Your task to perform on an android device: change the upload size in google photos Image 0: 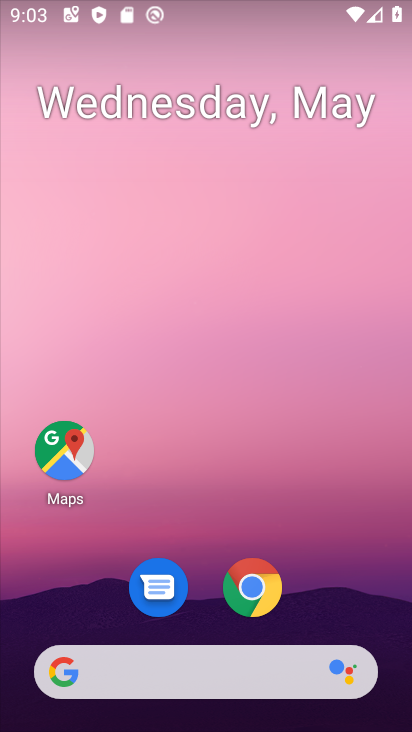
Step 0: drag from (202, 724) to (166, 106)
Your task to perform on an android device: change the upload size in google photos Image 1: 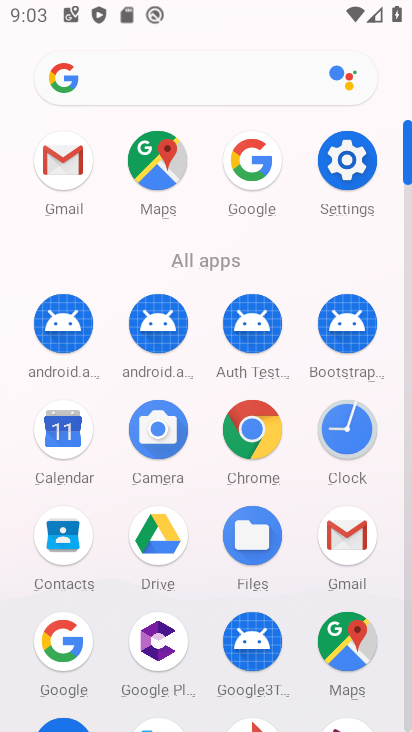
Step 1: drag from (196, 618) to (197, 248)
Your task to perform on an android device: change the upload size in google photos Image 2: 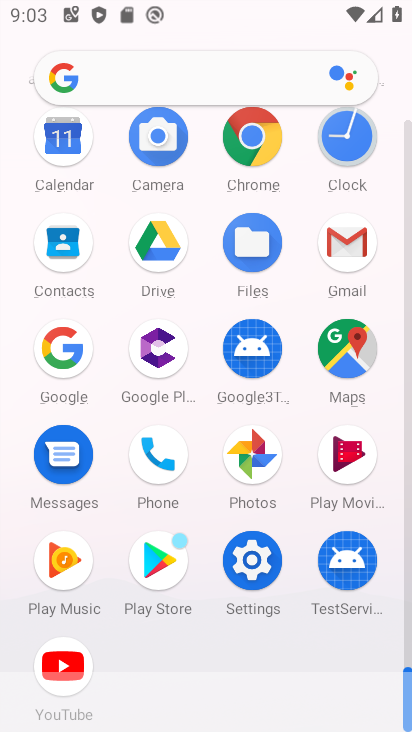
Step 2: click (249, 452)
Your task to perform on an android device: change the upload size in google photos Image 3: 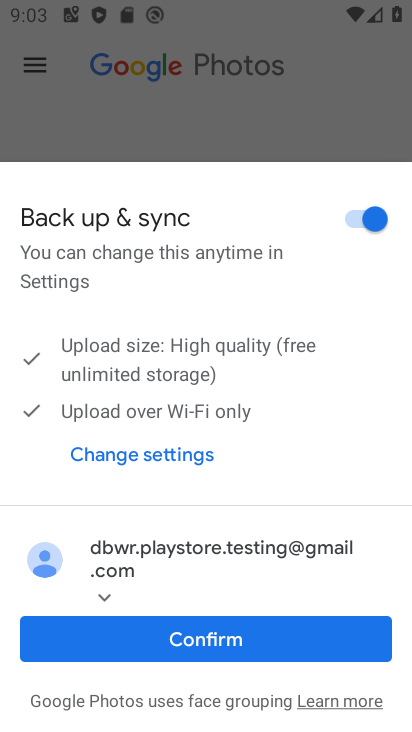
Step 3: click (197, 643)
Your task to perform on an android device: change the upload size in google photos Image 4: 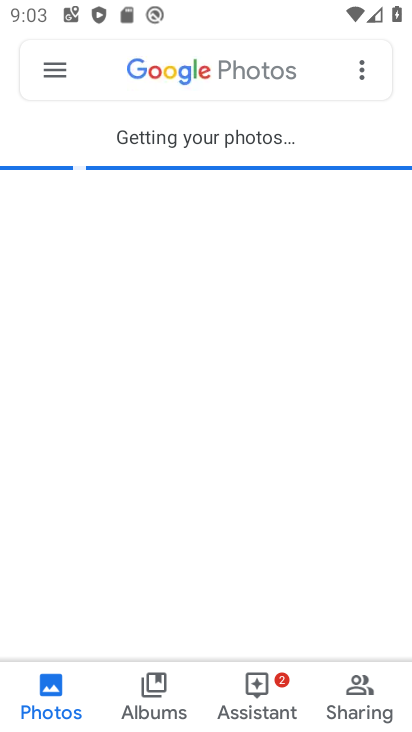
Step 4: click (46, 69)
Your task to perform on an android device: change the upload size in google photos Image 5: 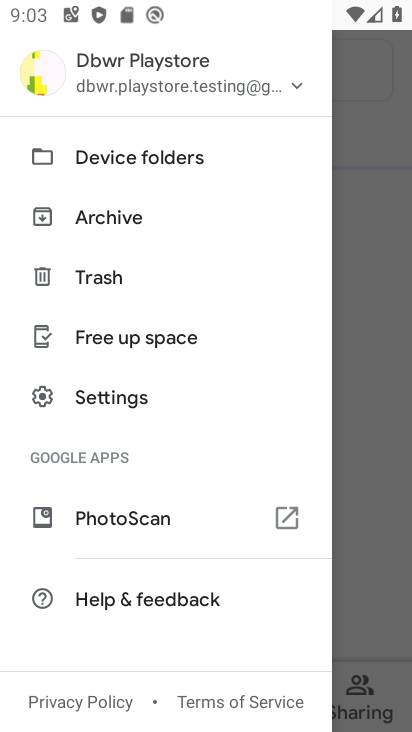
Step 5: click (113, 393)
Your task to perform on an android device: change the upload size in google photos Image 6: 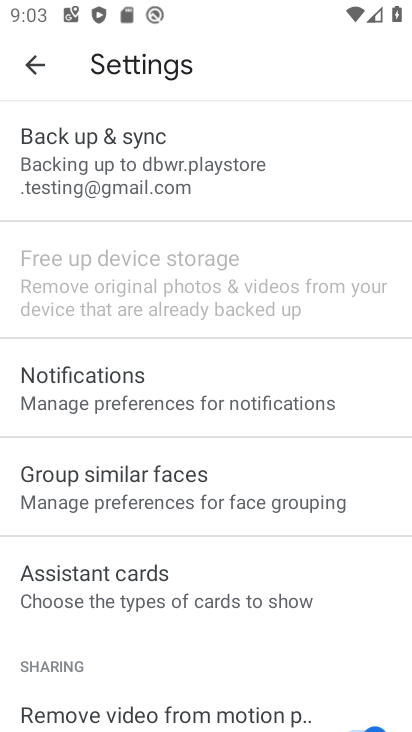
Step 6: drag from (133, 650) to (131, 423)
Your task to perform on an android device: change the upload size in google photos Image 7: 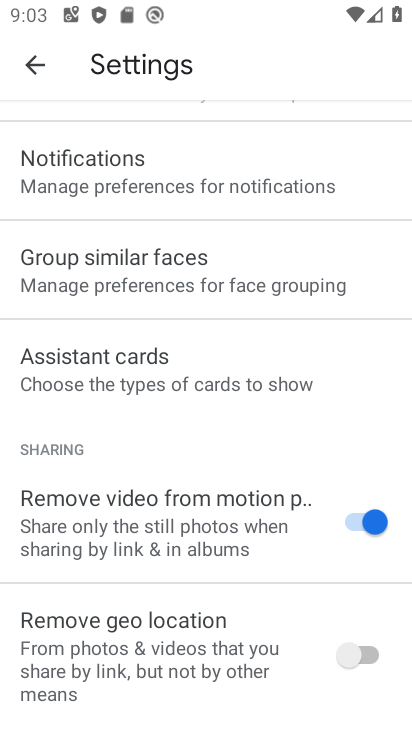
Step 7: drag from (189, 201) to (157, 528)
Your task to perform on an android device: change the upload size in google photos Image 8: 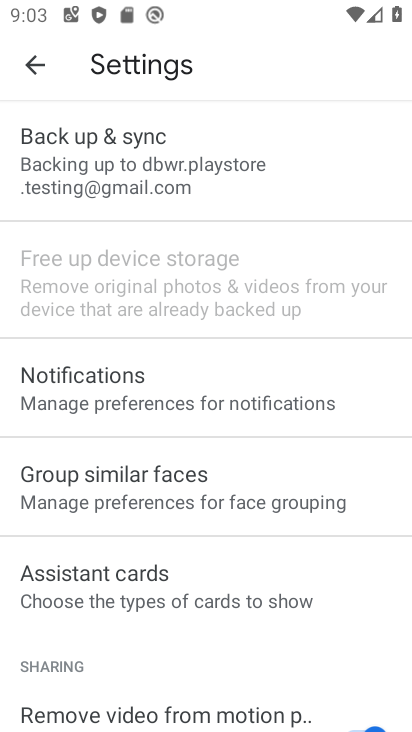
Step 8: click (112, 164)
Your task to perform on an android device: change the upload size in google photos Image 9: 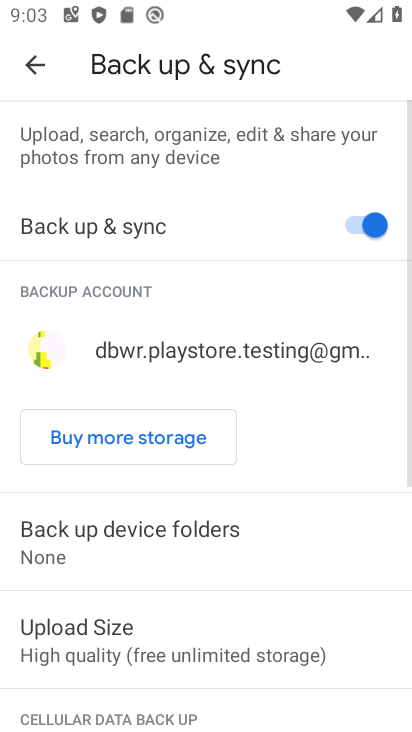
Step 9: drag from (165, 621) to (170, 382)
Your task to perform on an android device: change the upload size in google photos Image 10: 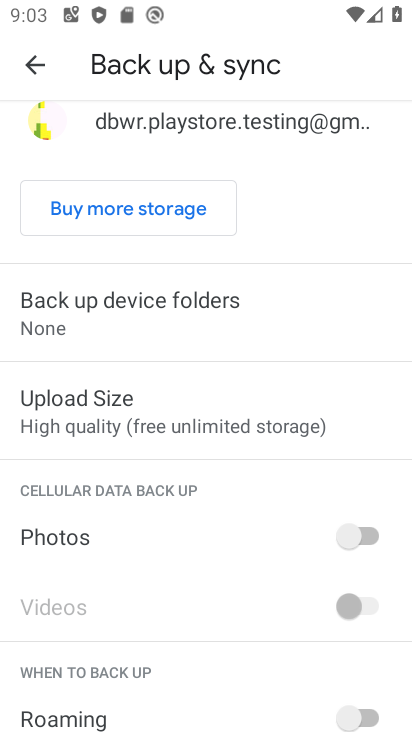
Step 10: click (73, 416)
Your task to perform on an android device: change the upload size in google photos Image 11: 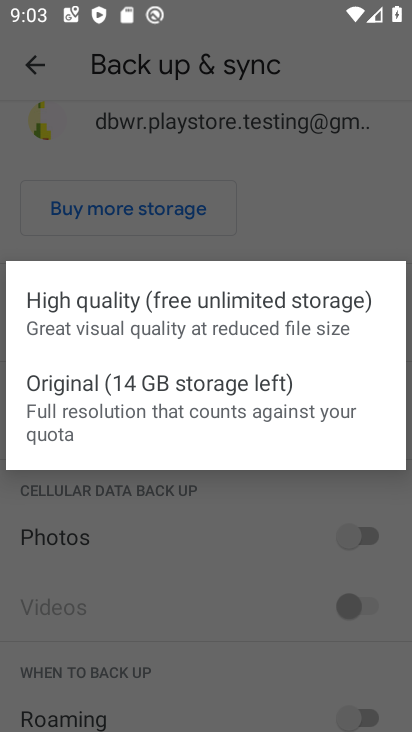
Step 11: click (78, 407)
Your task to perform on an android device: change the upload size in google photos Image 12: 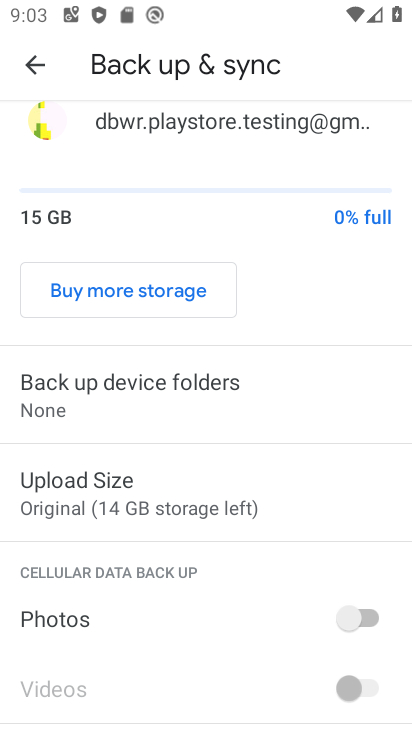
Step 12: task complete